Your task to perform on an android device: Open Reddit.com Image 0: 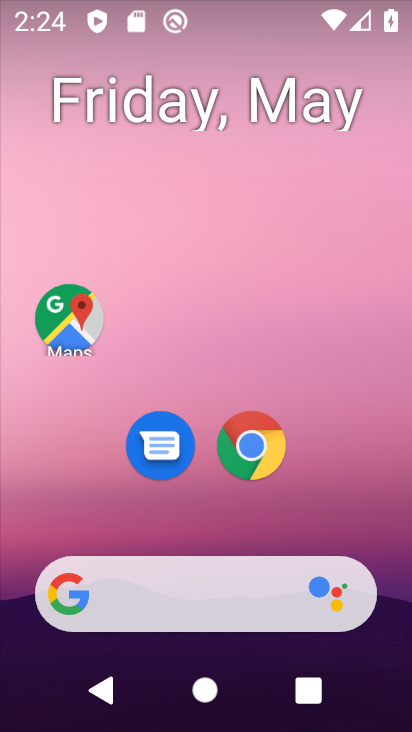
Step 0: drag from (257, 18) to (261, 465)
Your task to perform on an android device: Open Reddit.com Image 1: 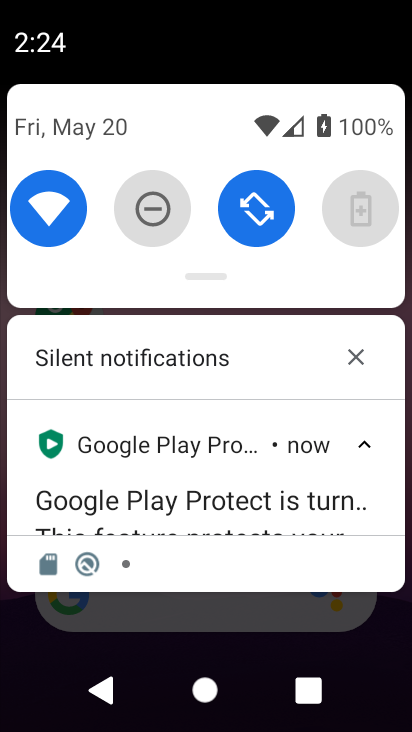
Step 1: task complete